Your task to perform on an android device: Open calendar and show me the second week of next month Image 0: 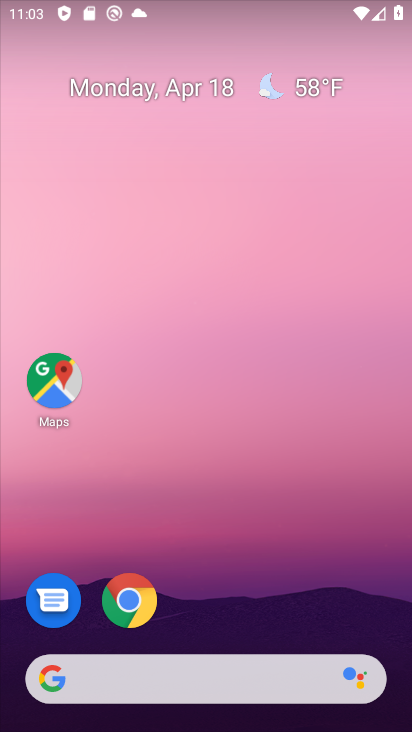
Step 0: drag from (196, 587) to (156, 0)
Your task to perform on an android device: Open calendar and show me the second week of next month Image 1: 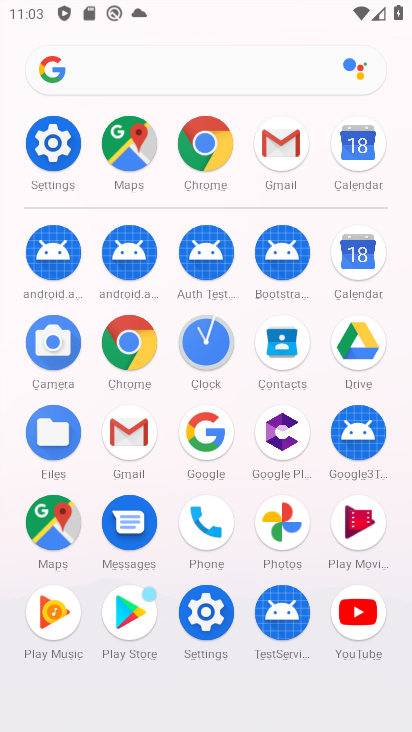
Step 1: click (363, 256)
Your task to perform on an android device: Open calendar and show me the second week of next month Image 2: 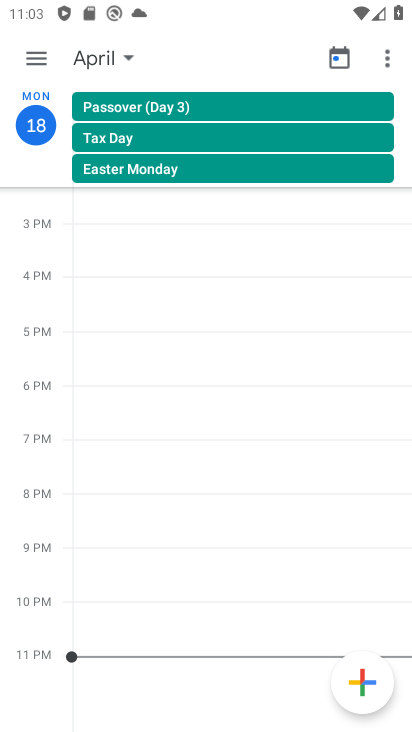
Step 2: click (36, 54)
Your task to perform on an android device: Open calendar and show me the second week of next month Image 3: 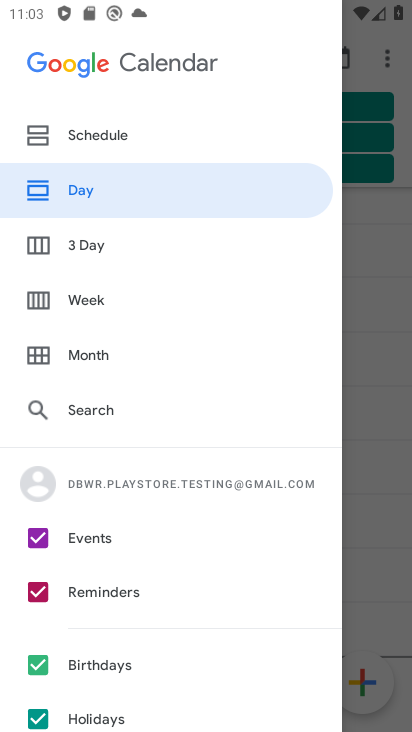
Step 3: click (105, 301)
Your task to perform on an android device: Open calendar and show me the second week of next month Image 4: 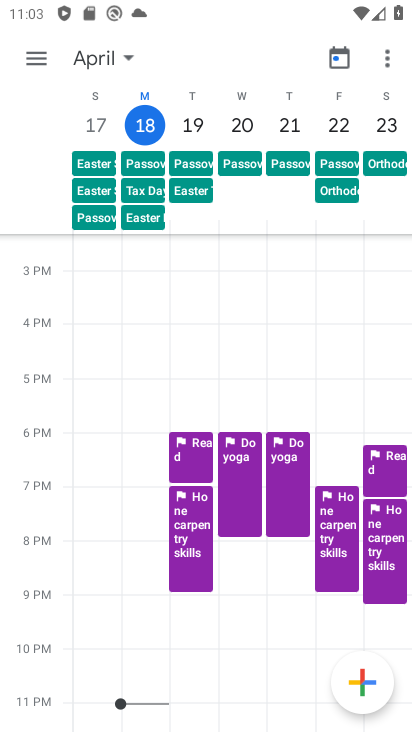
Step 4: click (121, 57)
Your task to perform on an android device: Open calendar and show me the second week of next month Image 5: 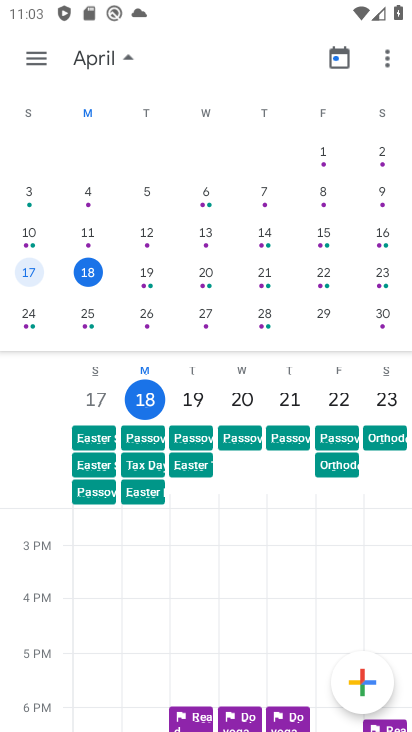
Step 5: drag from (374, 236) to (4, 221)
Your task to perform on an android device: Open calendar and show me the second week of next month Image 6: 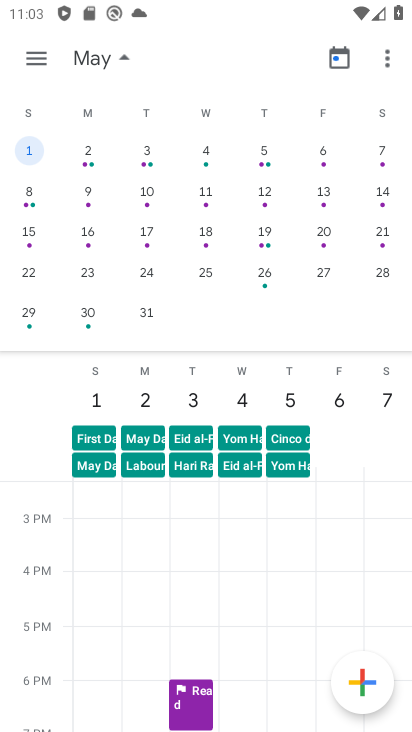
Step 6: click (87, 191)
Your task to perform on an android device: Open calendar and show me the second week of next month Image 7: 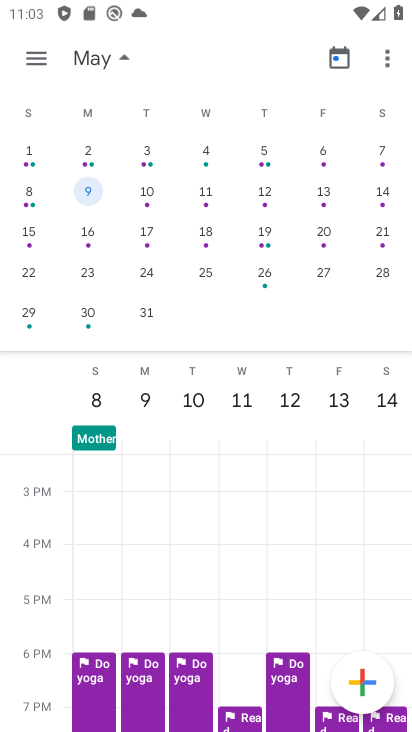
Step 7: task complete